Your task to perform on an android device: turn on airplane mode Image 0: 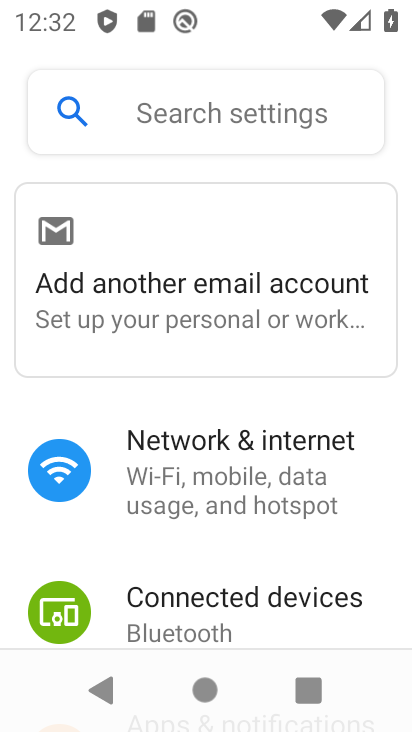
Step 0: press home button
Your task to perform on an android device: turn on airplane mode Image 1: 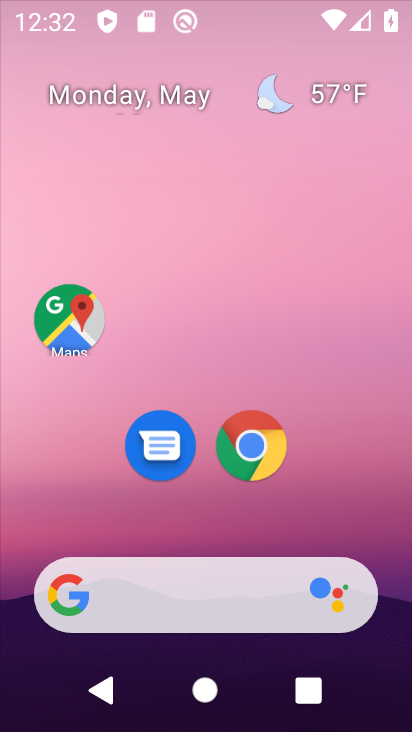
Step 1: drag from (382, 646) to (284, 60)
Your task to perform on an android device: turn on airplane mode Image 2: 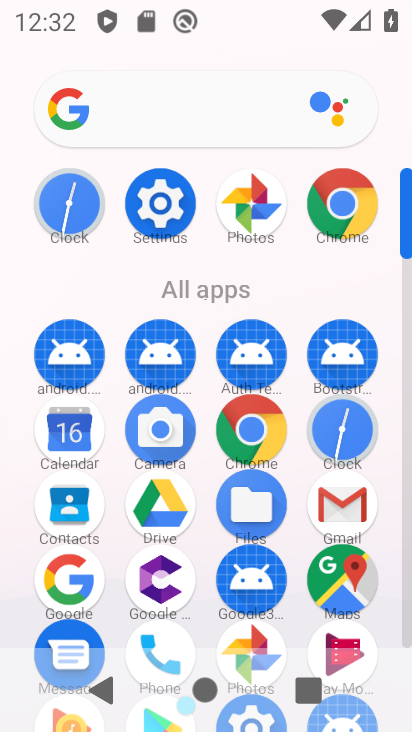
Step 2: drag from (234, 12) to (275, 655)
Your task to perform on an android device: turn on airplane mode Image 3: 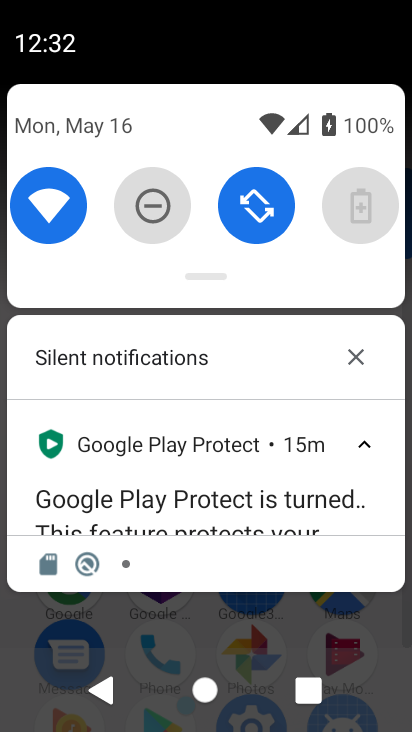
Step 3: drag from (323, 304) to (315, 720)
Your task to perform on an android device: turn on airplane mode Image 4: 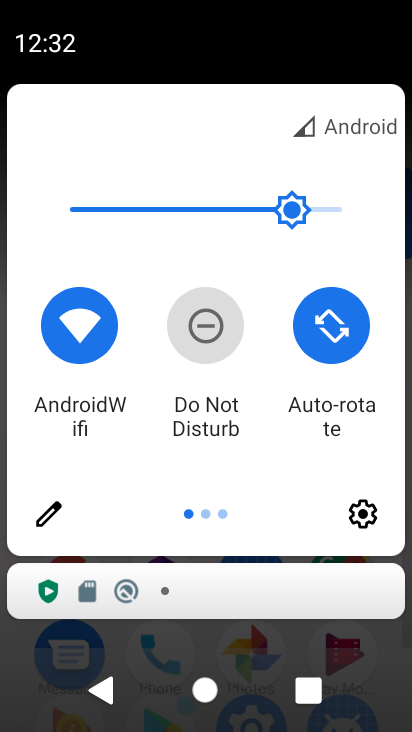
Step 4: drag from (356, 402) to (24, 402)
Your task to perform on an android device: turn on airplane mode Image 5: 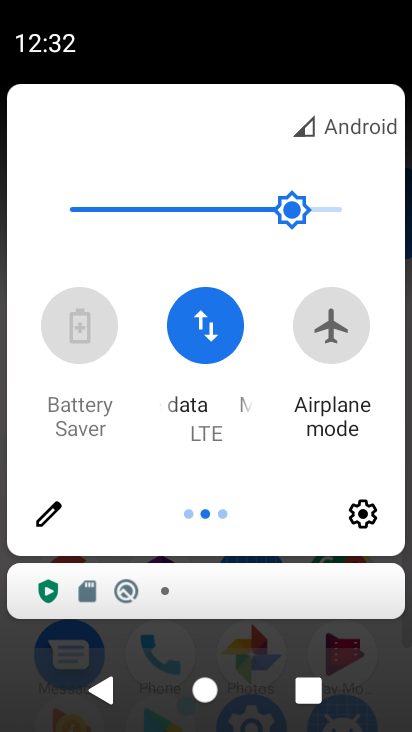
Step 5: click (334, 320)
Your task to perform on an android device: turn on airplane mode Image 6: 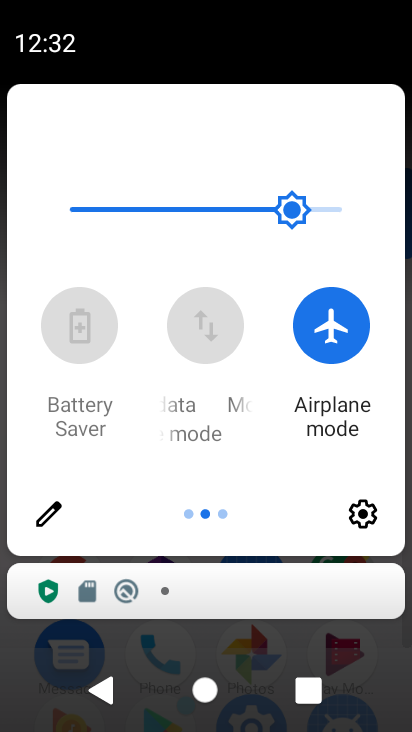
Step 6: task complete